Your task to perform on an android device: add a contact Image 0: 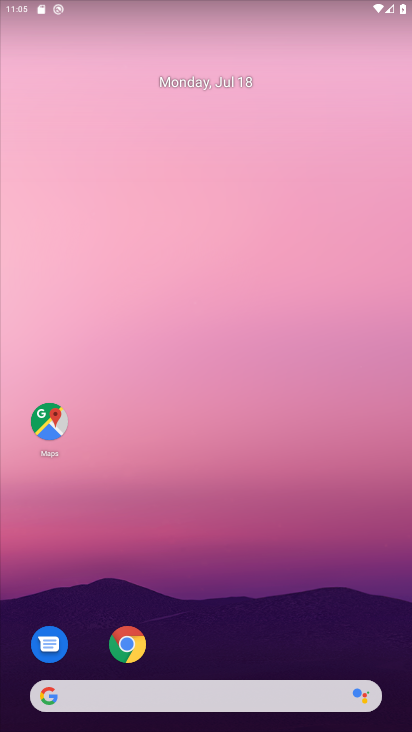
Step 0: drag from (271, 442) to (270, 175)
Your task to perform on an android device: add a contact Image 1: 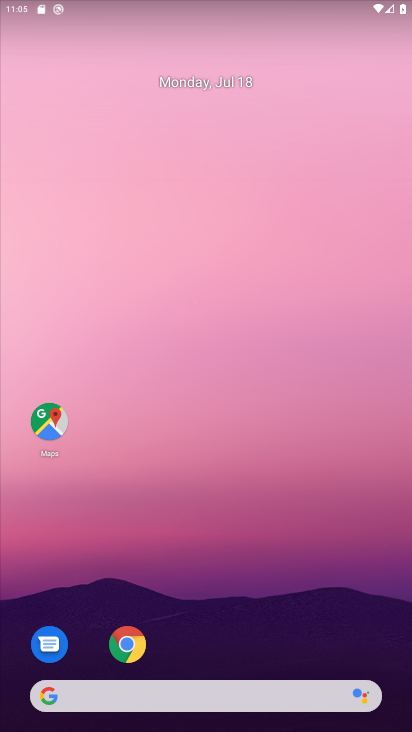
Step 1: drag from (233, 642) to (240, 584)
Your task to perform on an android device: add a contact Image 2: 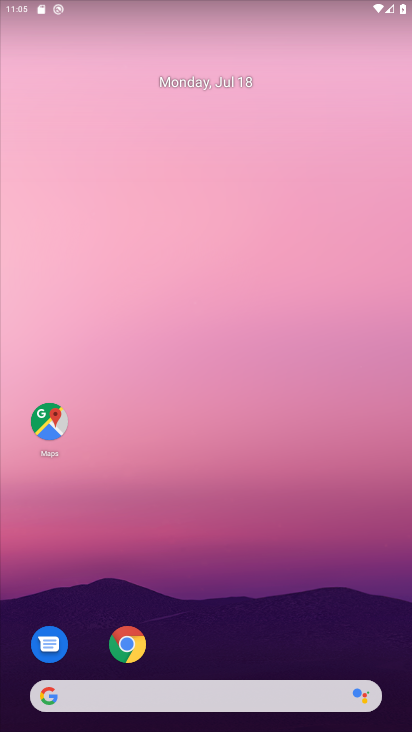
Step 2: drag from (246, 630) to (255, 448)
Your task to perform on an android device: add a contact Image 3: 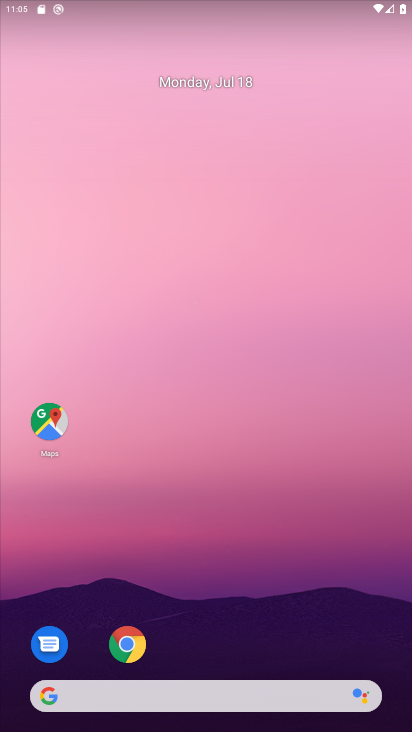
Step 3: drag from (244, 646) to (298, 223)
Your task to perform on an android device: add a contact Image 4: 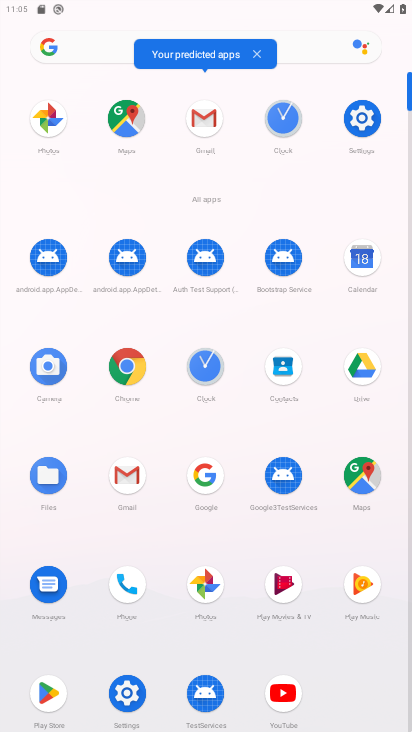
Step 4: click (283, 366)
Your task to perform on an android device: add a contact Image 5: 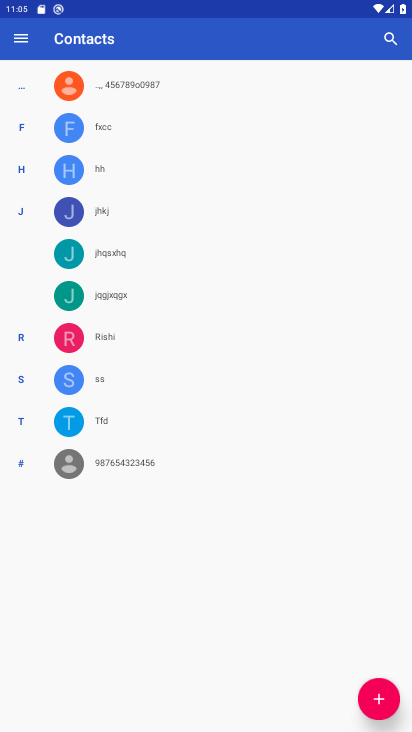
Step 5: click (394, 688)
Your task to perform on an android device: add a contact Image 6: 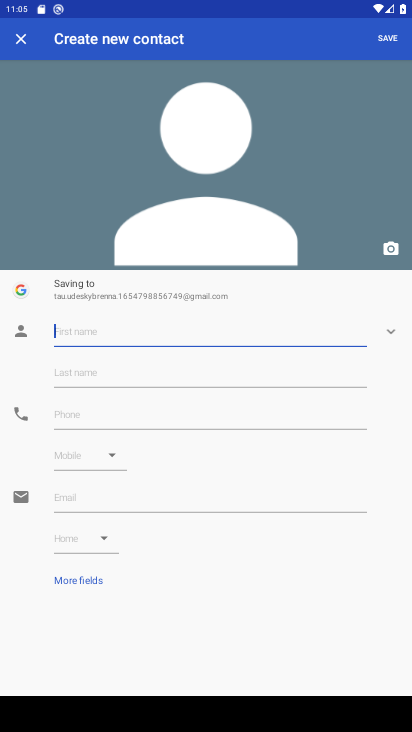
Step 6: type "bb"
Your task to perform on an android device: add a contact Image 7: 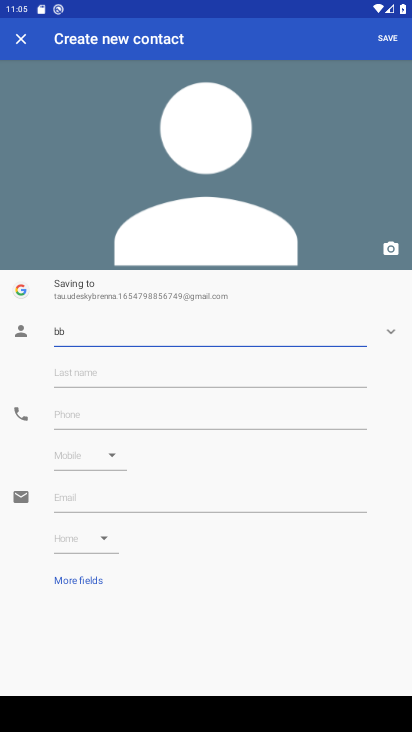
Step 7: click (64, 417)
Your task to perform on an android device: add a contact Image 8: 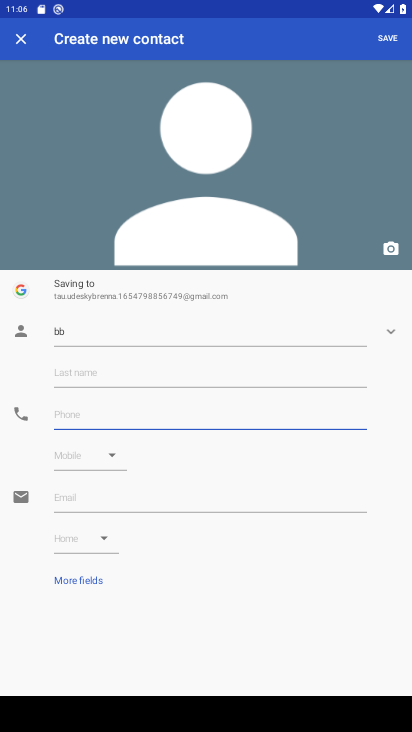
Step 8: type "99009990"
Your task to perform on an android device: add a contact Image 9: 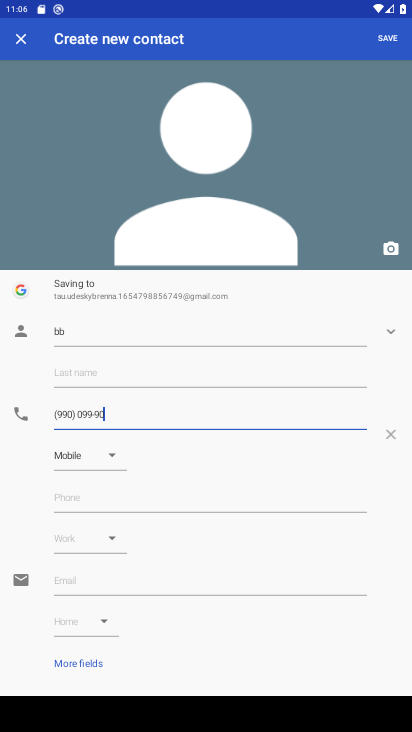
Step 9: click (389, 35)
Your task to perform on an android device: add a contact Image 10: 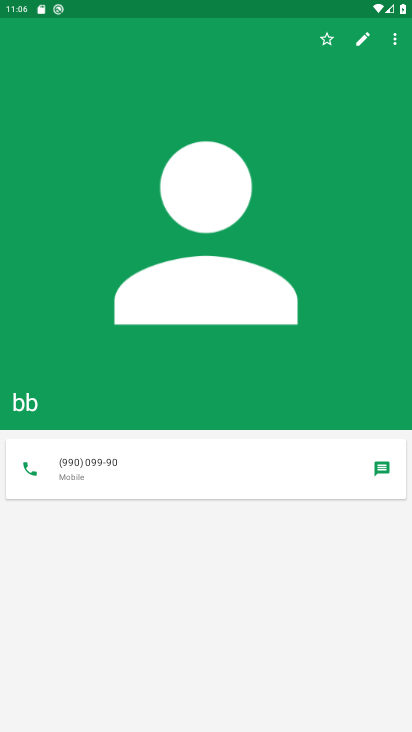
Step 10: task complete